Your task to perform on an android device: change the clock display to show seconds Image 0: 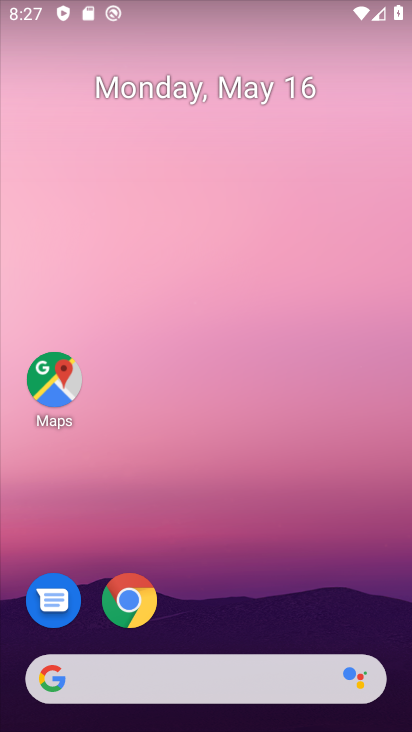
Step 0: drag from (370, 630) to (326, 95)
Your task to perform on an android device: change the clock display to show seconds Image 1: 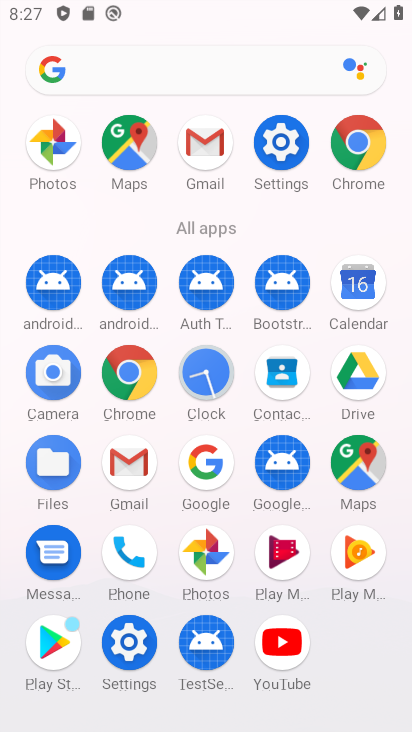
Step 1: click (203, 369)
Your task to perform on an android device: change the clock display to show seconds Image 2: 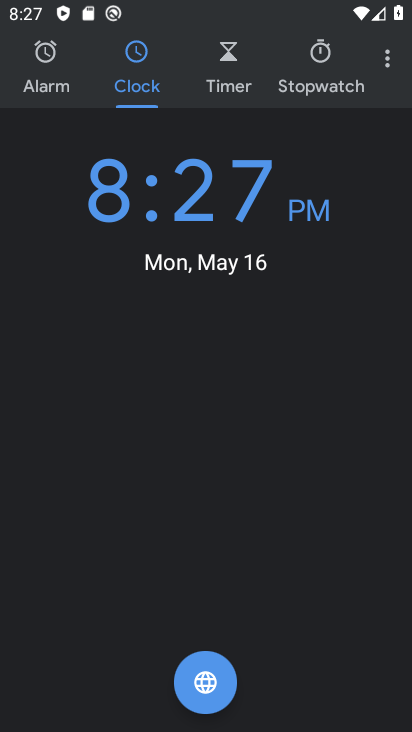
Step 2: click (383, 61)
Your task to perform on an android device: change the clock display to show seconds Image 3: 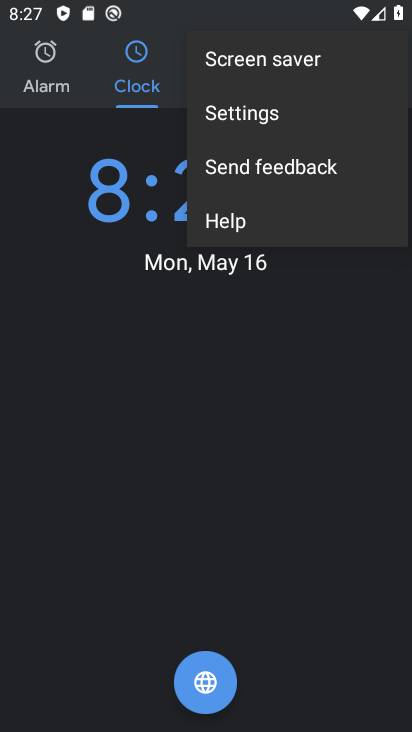
Step 3: click (253, 111)
Your task to perform on an android device: change the clock display to show seconds Image 4: 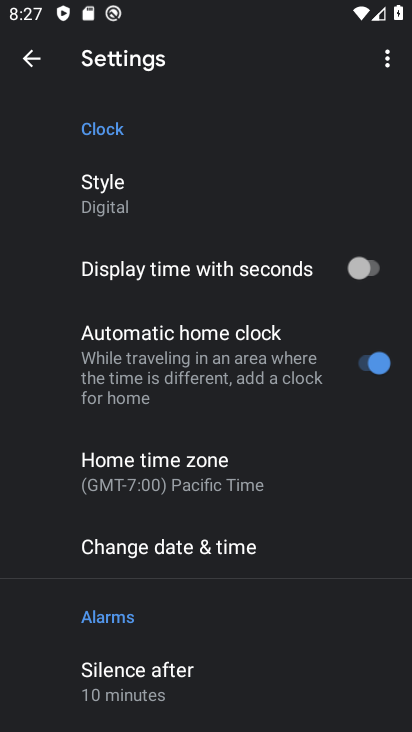
Step 4: click (369, 267)
Your task to perform on an android device: change the clock display to show seconds Image 5: 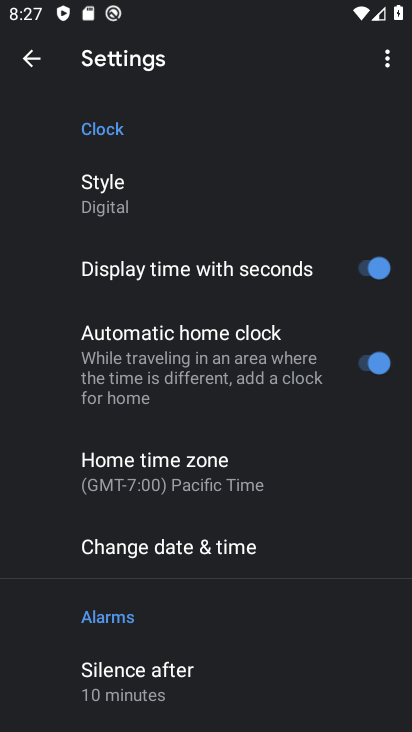
Step 5: task complete